Your task to perform on an android device: Is it going to rain today? Image 0: 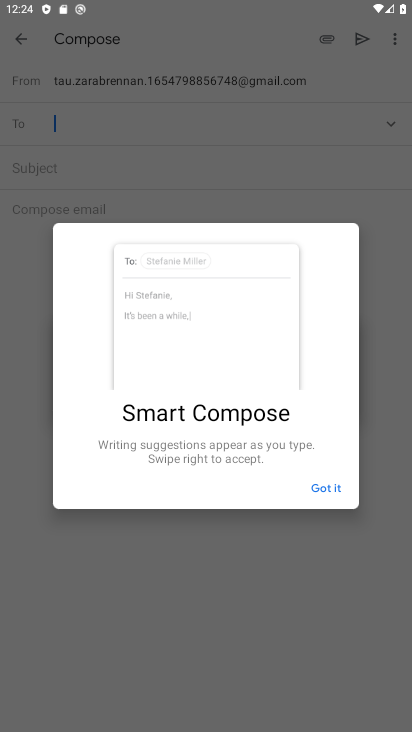
Step 0: press home button
Your task to perform on an android device: Is it going to rain today? Image 1: 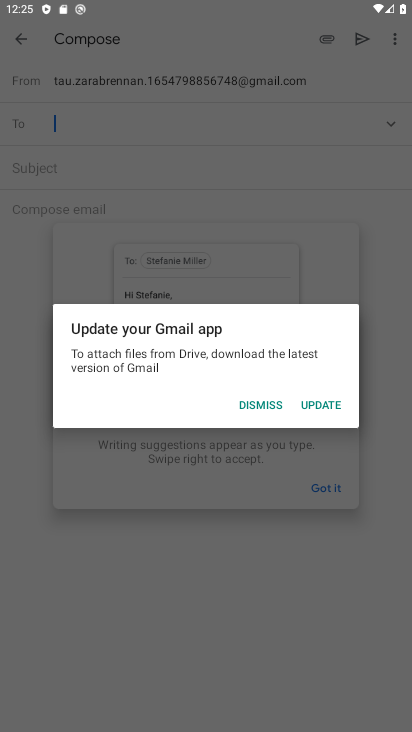
Step 1: click (258, 399)
Your task to perform on an android device: Is it going to rain today? Image 2: 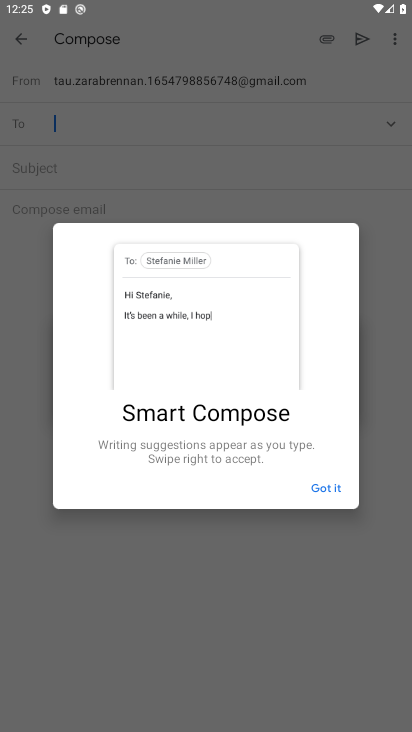
Step 2: click (325, 487)
Your task to perform on an android device: Is it going to rain today? Image 3: 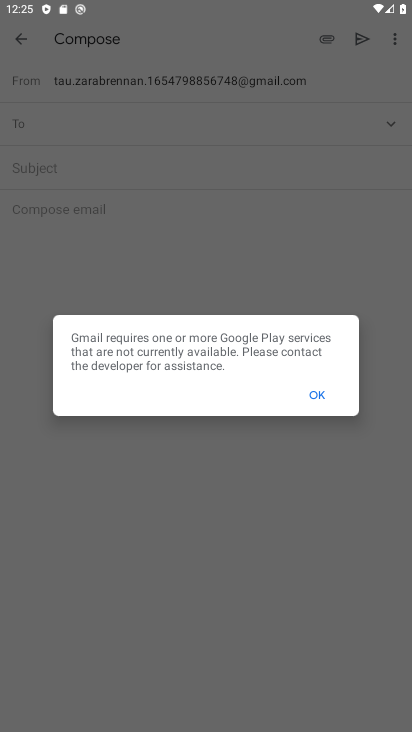
Step 3: click (312, 393)
Your task to perform on an android device: Is it going to rain today? Image 4: 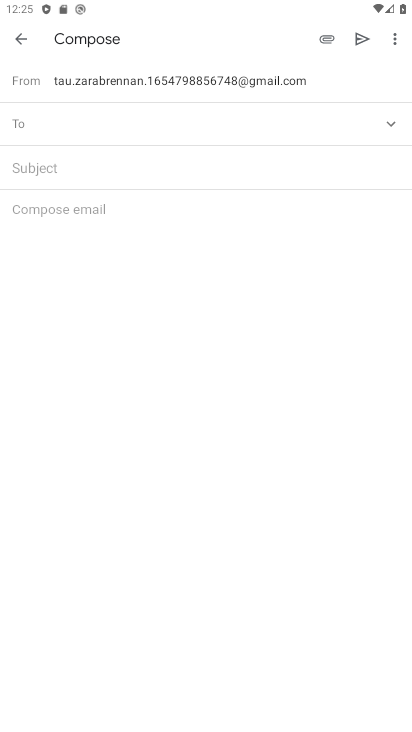
Step 4: press home button
Your task to perform on an android device: Is it going to rain today? Image 5: 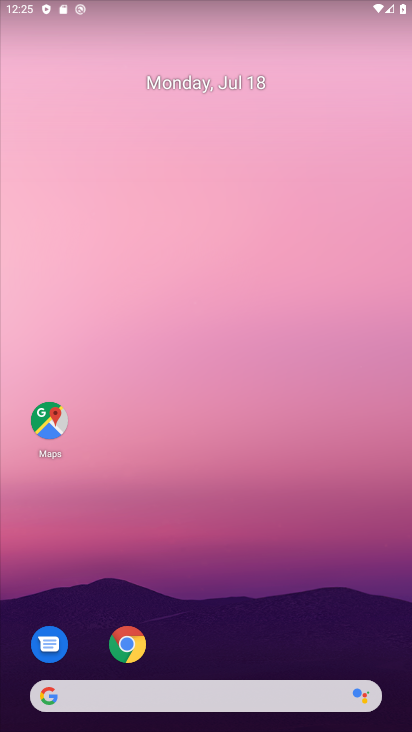
Step 5: click (182, 687)
Your task to perform on an android device: Is it going to rain today? Image 6: 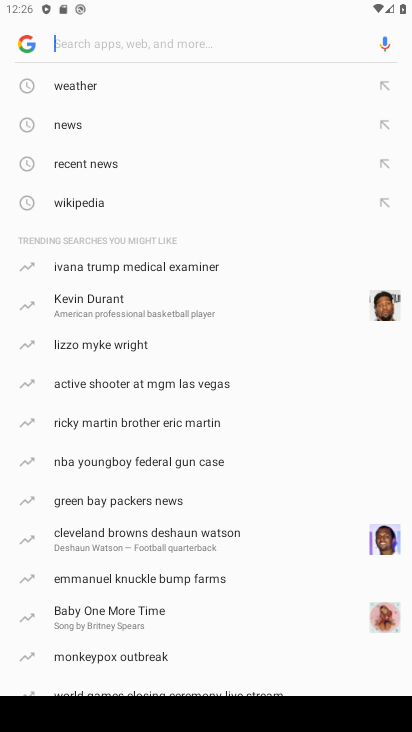
Step 6: click (101, 83)
Your task to perform on an android device: Is it going to rain today? Image 7: 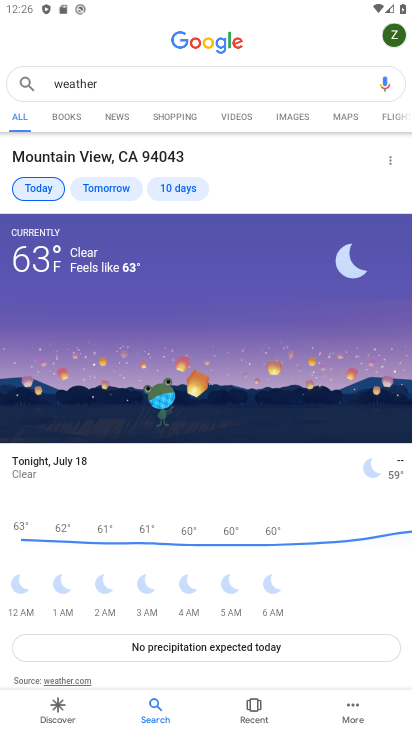
Step 7: task complete